Your task to perform on an android device: refresh tabs in the chrome app Image 0: 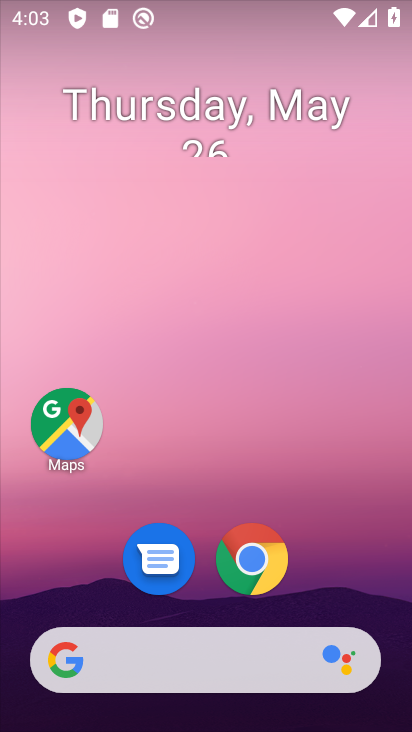
Step 0: click (256, 551)
Your task to perform on an android device: refresh tabs in the chrome app Image 1: 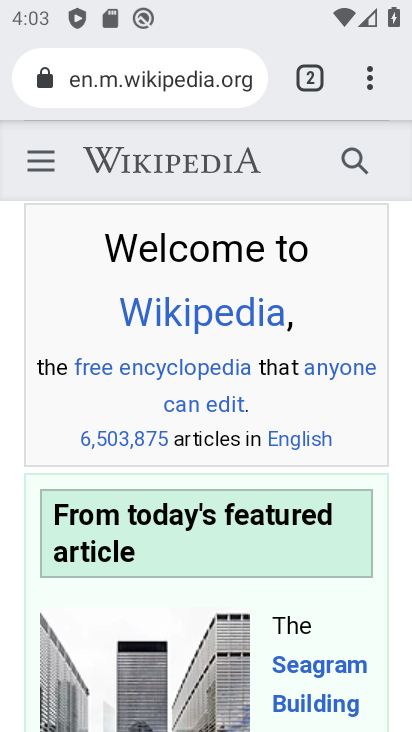
Step 1: click (365, 79)
Your task to perform on an android device: refresh tabs in the chrome app Image 2: 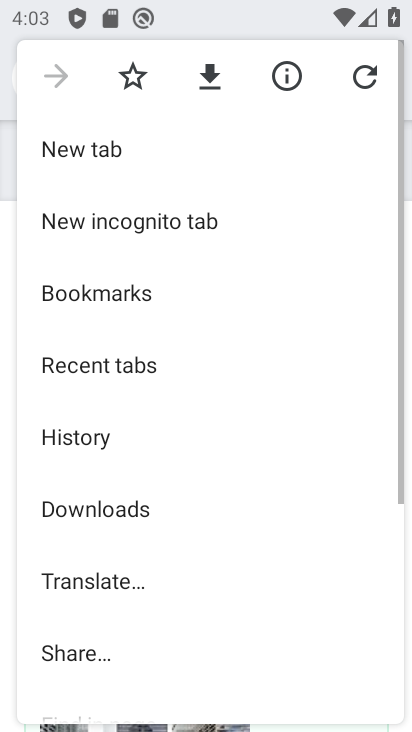
Step 2: click (364, 78)
Your task to perform on an android device: refresh tabs in the chrome app Image 3: 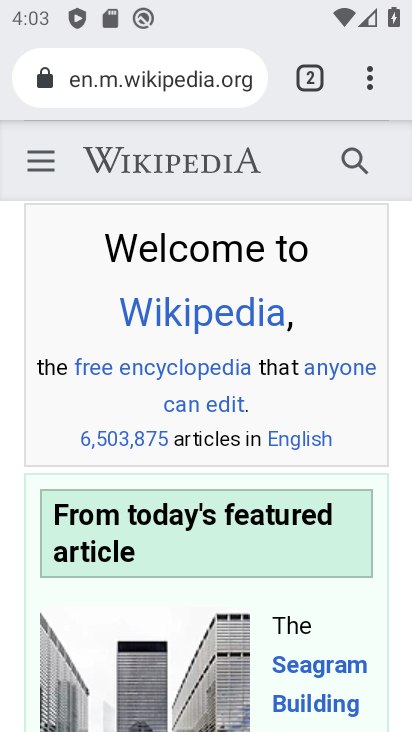
Step 3: task complete